Your task to perform on an android device: Open Google Maps and go to "Timeline" Image 0: 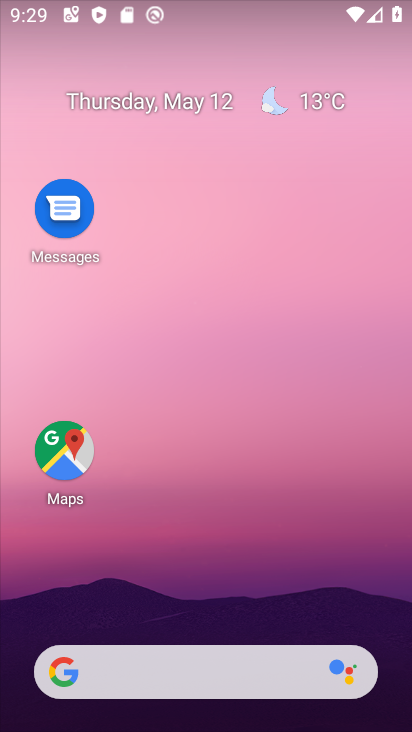
Step 0: drag from (188, 647) to (74, 22)
Your task to perform on an android device: Open Google Maps and go to "Timeline" Image 1: 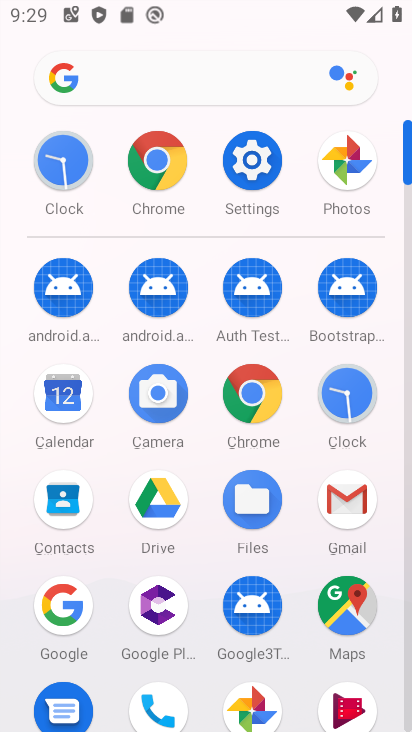
Step 1: click (346, 620)
Your task to perform on an android device: Open Google Maps and go to "Timeline" Image 2: 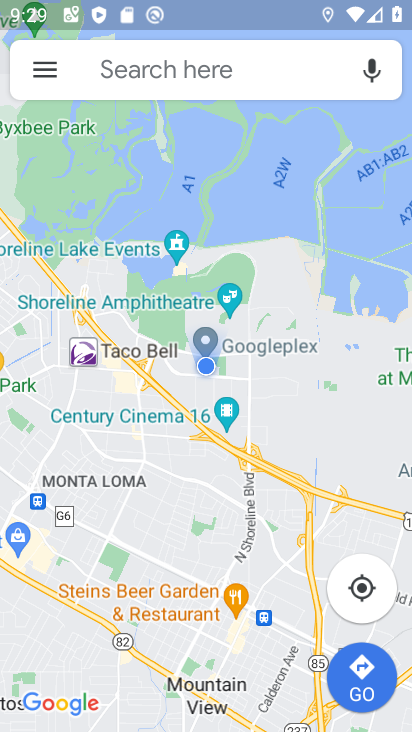
Step 2: click (24, 56)
Your task to perform on an android device: Open Google Maps and go to "Timeline" Image 3: 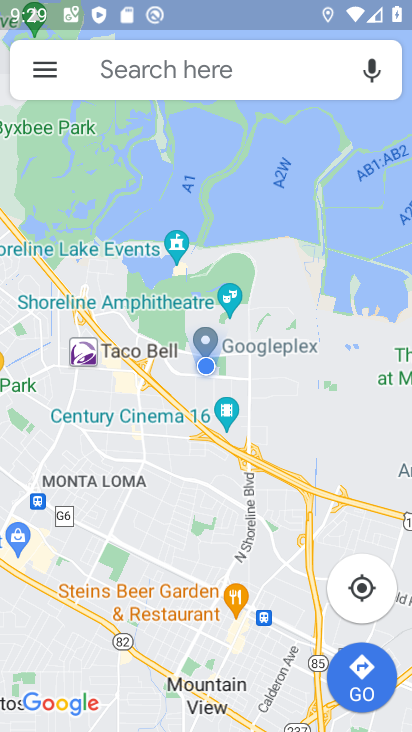
Step 3: click (28, 60)
Your task to perform on an android device: Open Google Maps and go to "Timeline" Image 4: 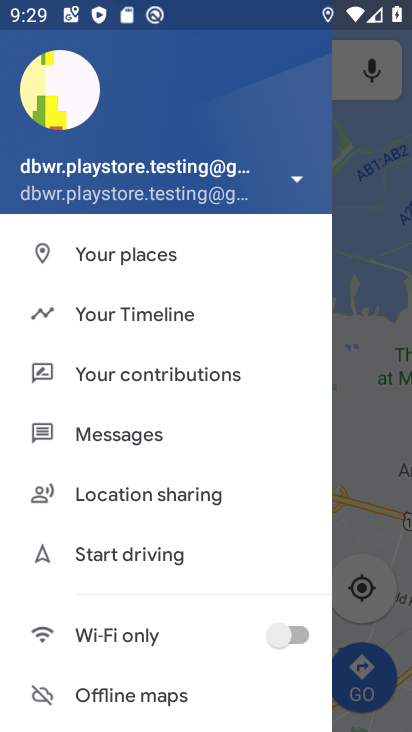
Step 4: click (128, 294)
Your task to perform on an android device: Open Google Maps and go to "Timeline" Image 5: 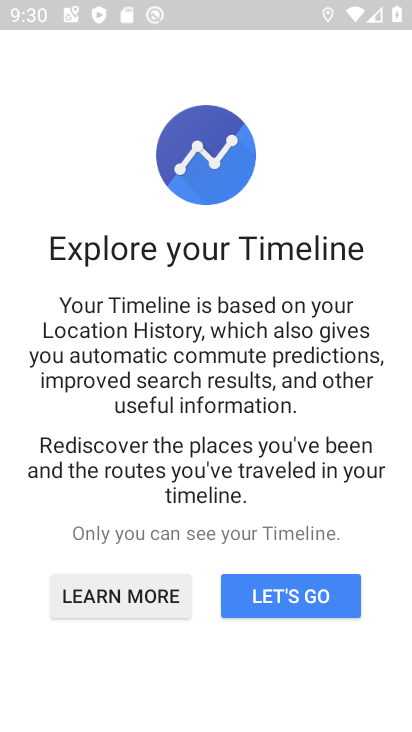
Step 5: click (302, 596)
Your task to perform on an android device: Open Google Maps and go to "Timeline" Image 6: 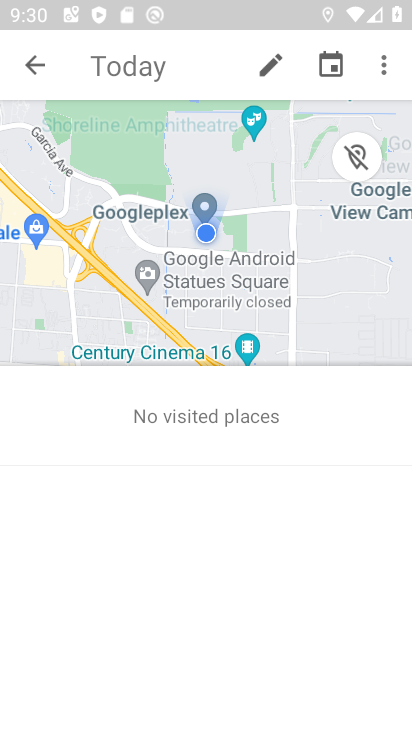
Step 6: task complete